Your task to perform on an android device: Open Chrome and go to the settings page Image 0: 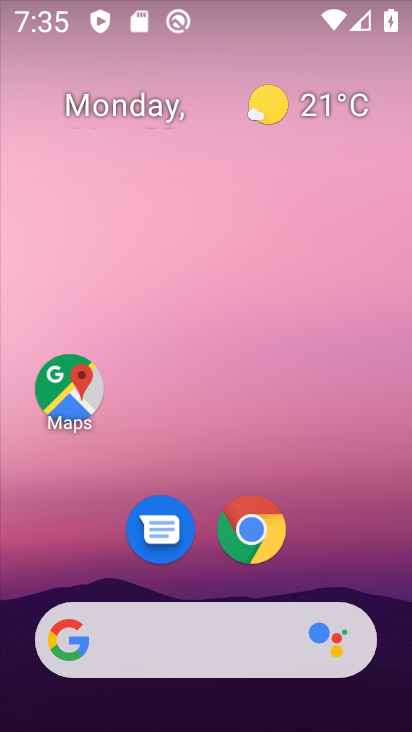
Step 0: drag from (311, 550) to (326, 52)
Your task to perform on an android device: Open Chrome and go to the settings page Image 1: 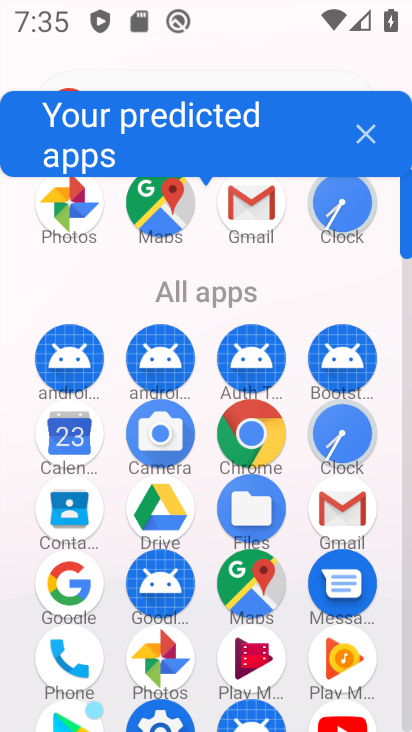
Step 1: click (254, 420)
Your task to perform on an android device: Open Chrome and go to the settings page Image 2: 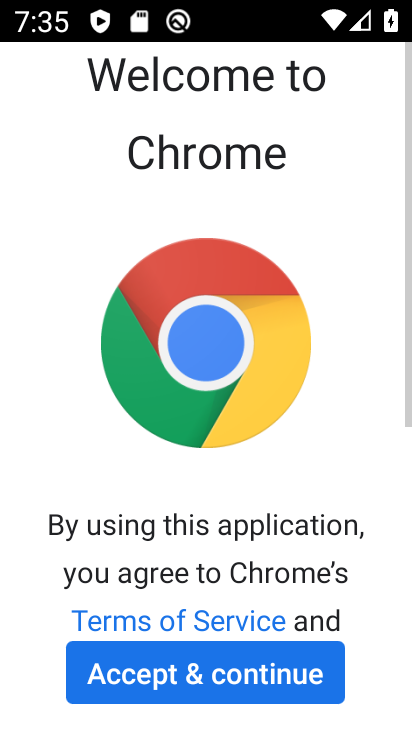
Step 2: click (248, 672)
Your task to perform on an android device: Open Chrome and go to the settings page Image 3: 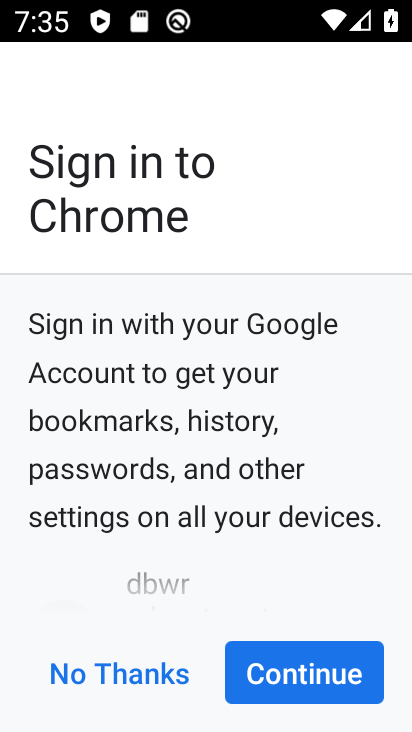
Step 3: click (310, 676)
Your task to perform on an android device: Open Chrome and go to the settings page Image 4: 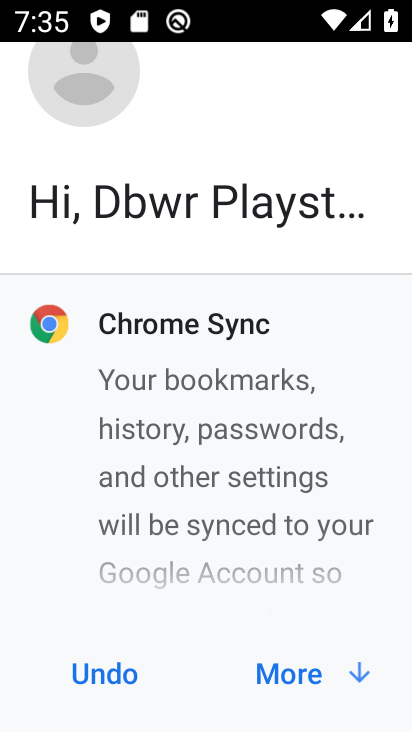
Step 4: click (313, 676)
Your task to perform on an android device: Open Chrome and go to the settings page Image 5: 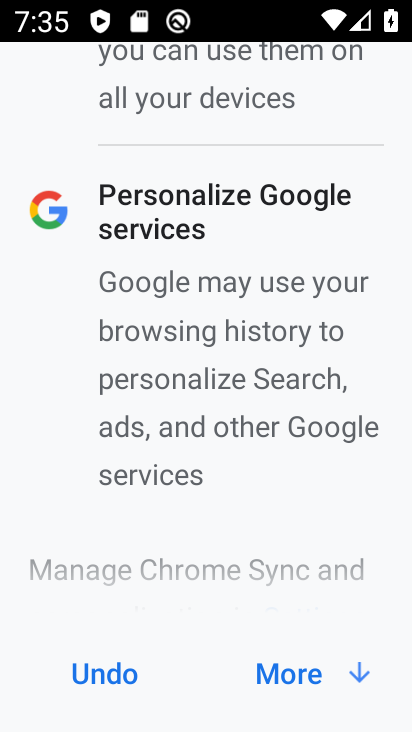
Step 5: click (313, 674)
Your task to perform on an android device: Open Chrome and go to the settings page Image 6: 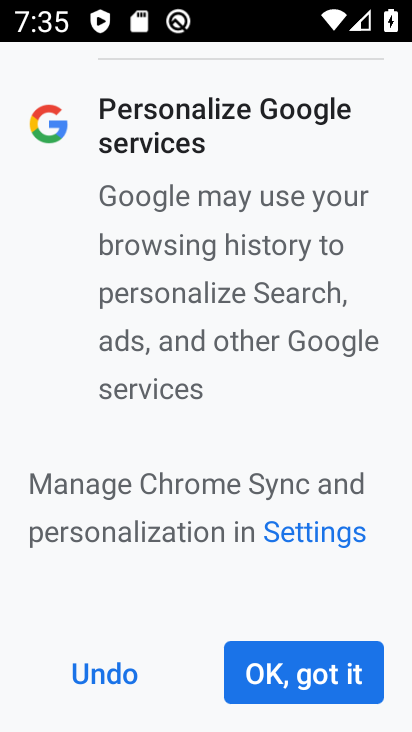
Step 6: click (313, 674)
Your task to perform on an android device: Open Chrome and go to the settings page Image 7: 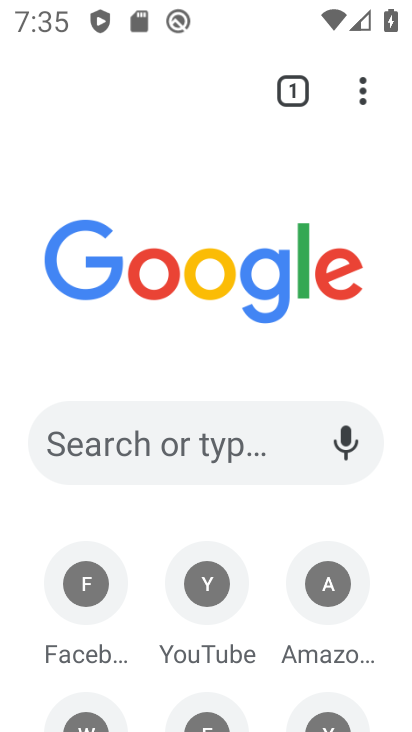
Step 7: click (367, 92)
Your task to perform on an android device: Open Chrome and go to the settings page Image 8: 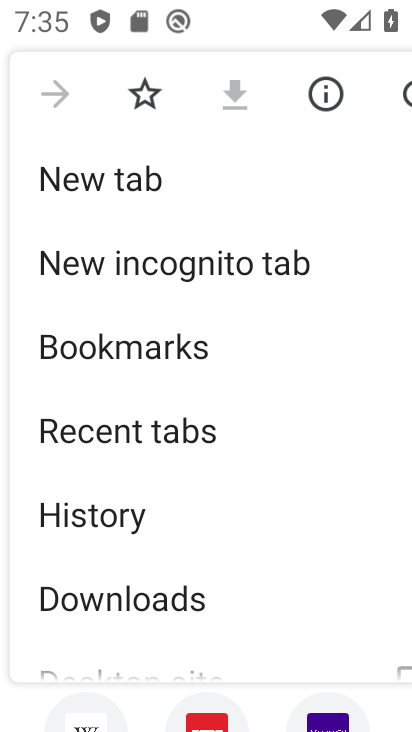
Step 8: drag from (257, 574) to (235, 97)
Your task to perform on an android device: Open Chrome and go to the settings page Image 9: 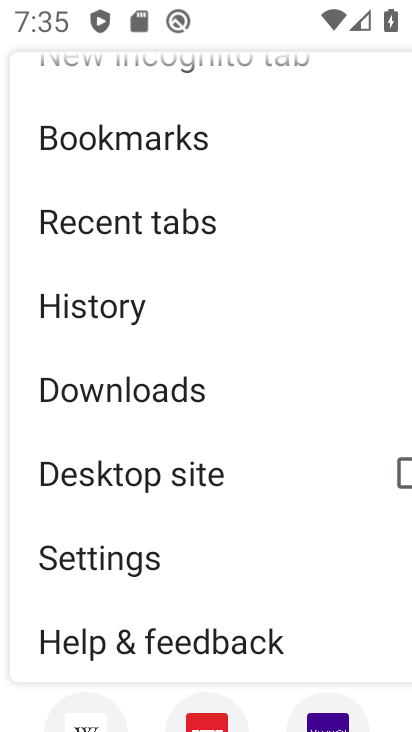
Step 9: click (139, 563)
Your task to perform on an android device: Open Chrome and go to the settings page Image 10: 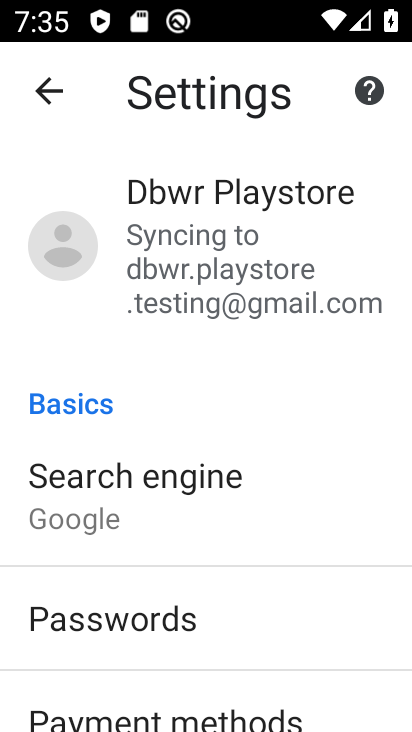
Step 10: task complete